Your task to perform on an android device: Open the web browser Image 0: 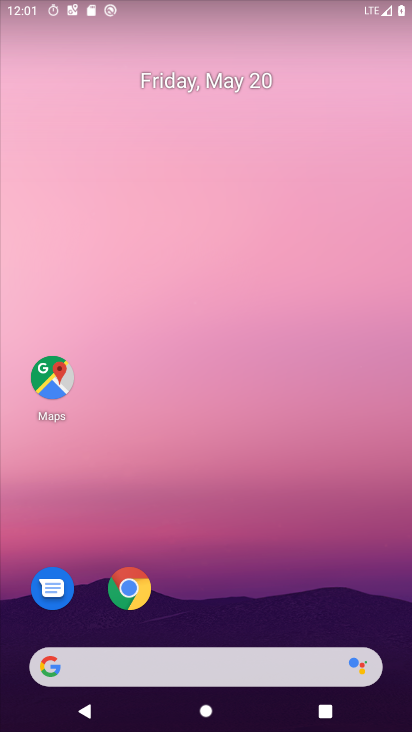
Step 0: press home button
Your task to perform on an android device: Open the web browser Image 1: 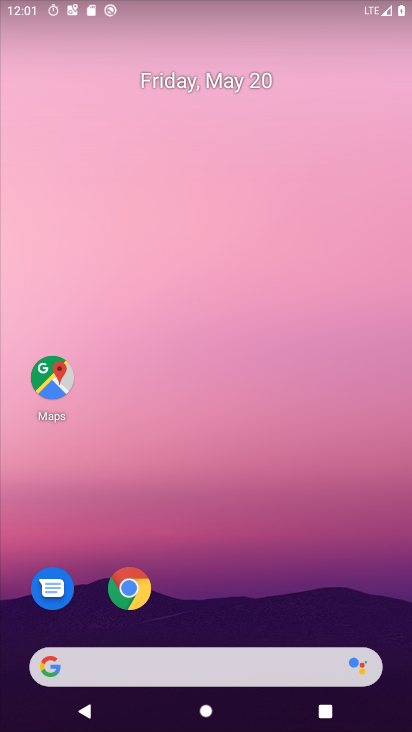
Step 1: click (129, 591)
Your task to perform on an android device: Open the web browser Image 2: 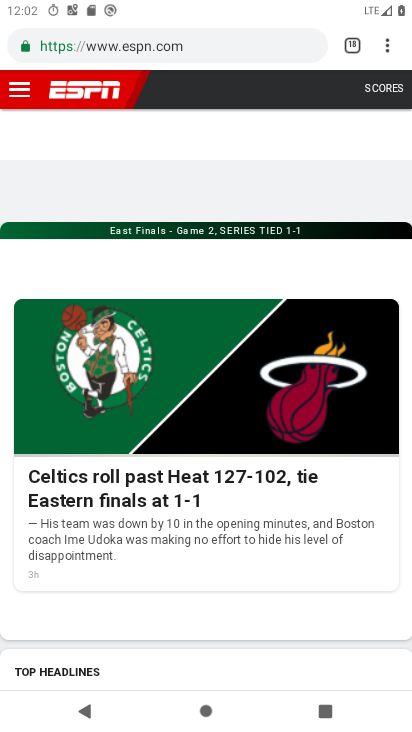
Step 2: task complete